Your task to perform on an android device: View the shopping cart on newegg.com. Image 0: 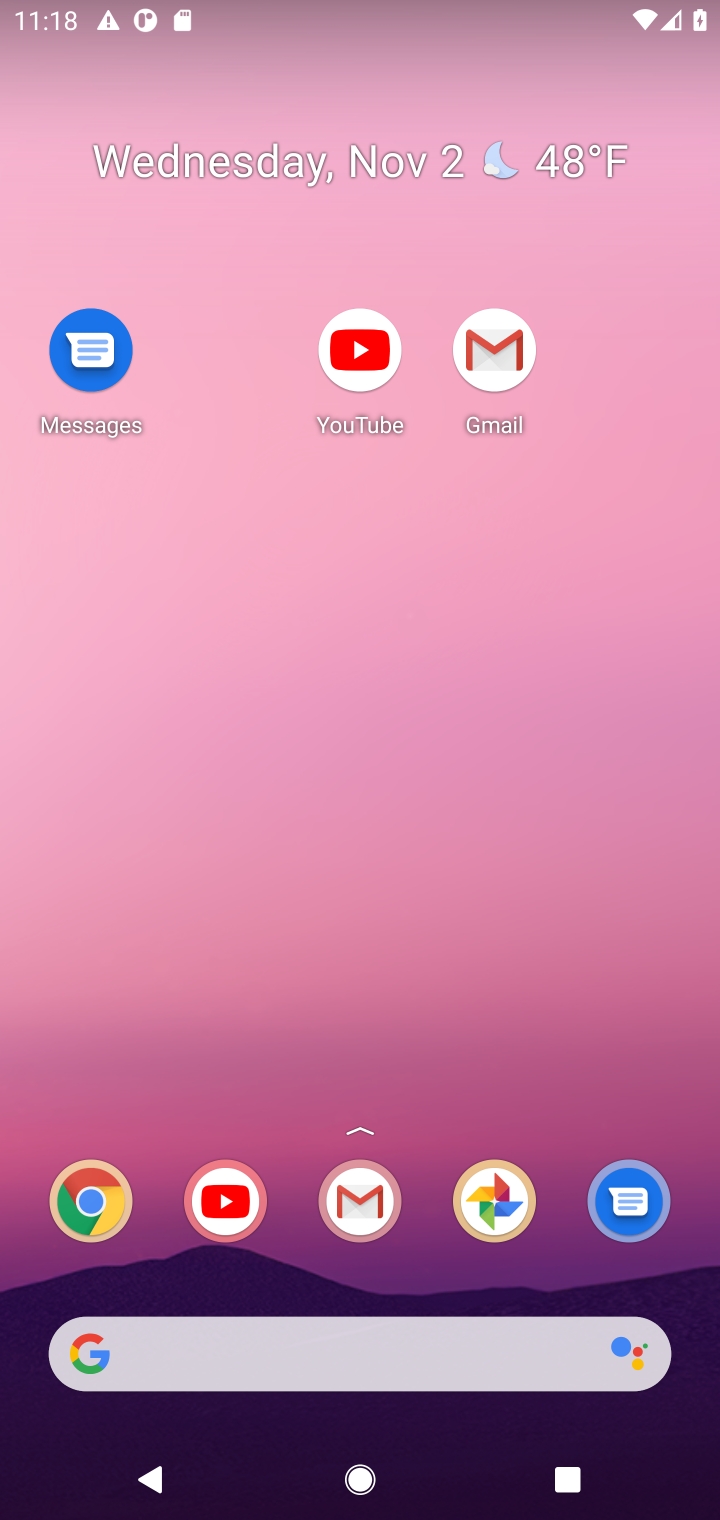
Step 0: drag from (452, 1305) to (474, 193)
Your task to perform on an android device: View the shopping cart on newegg.com. Image 1: 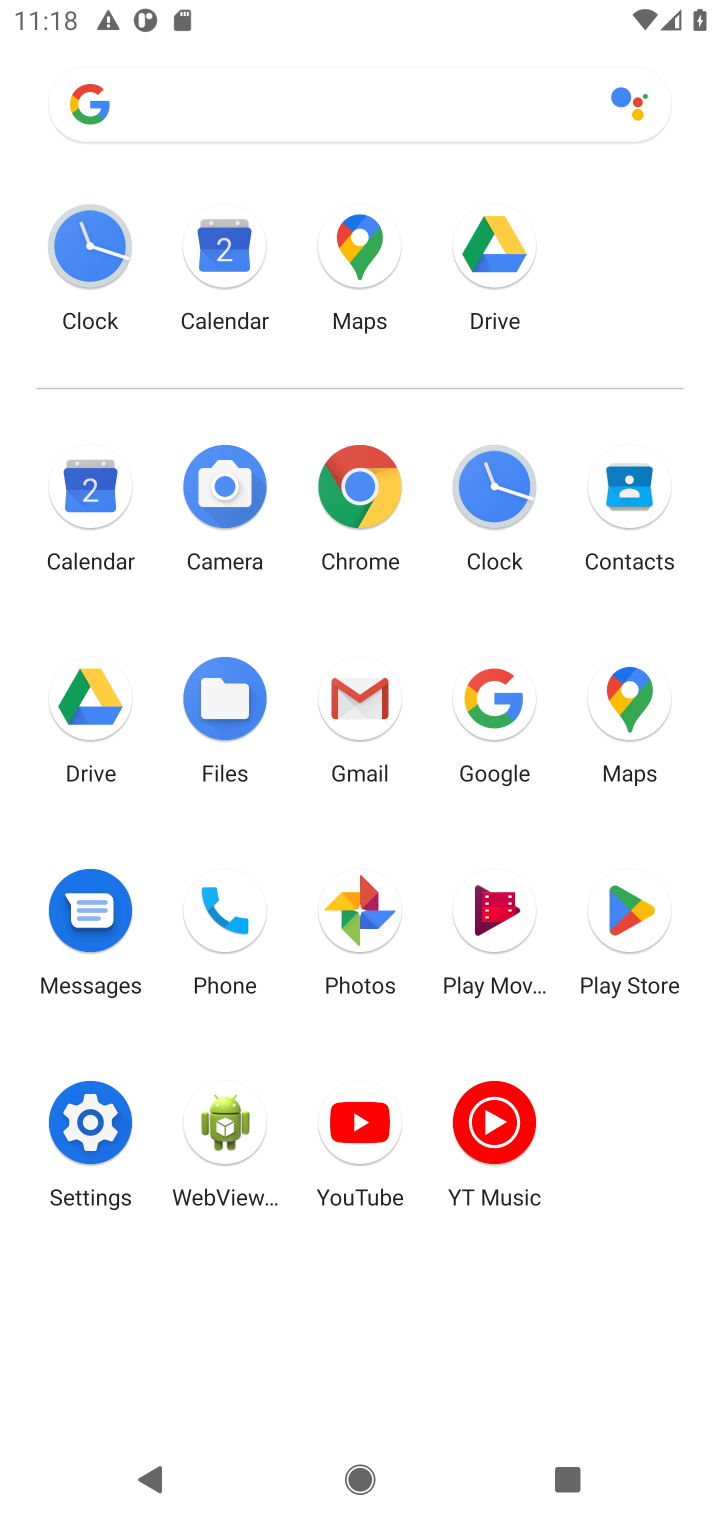
Step 1: click (365, 482)
Your task to perform on an android device: View the shopping cart on newegg.com. Image 2: 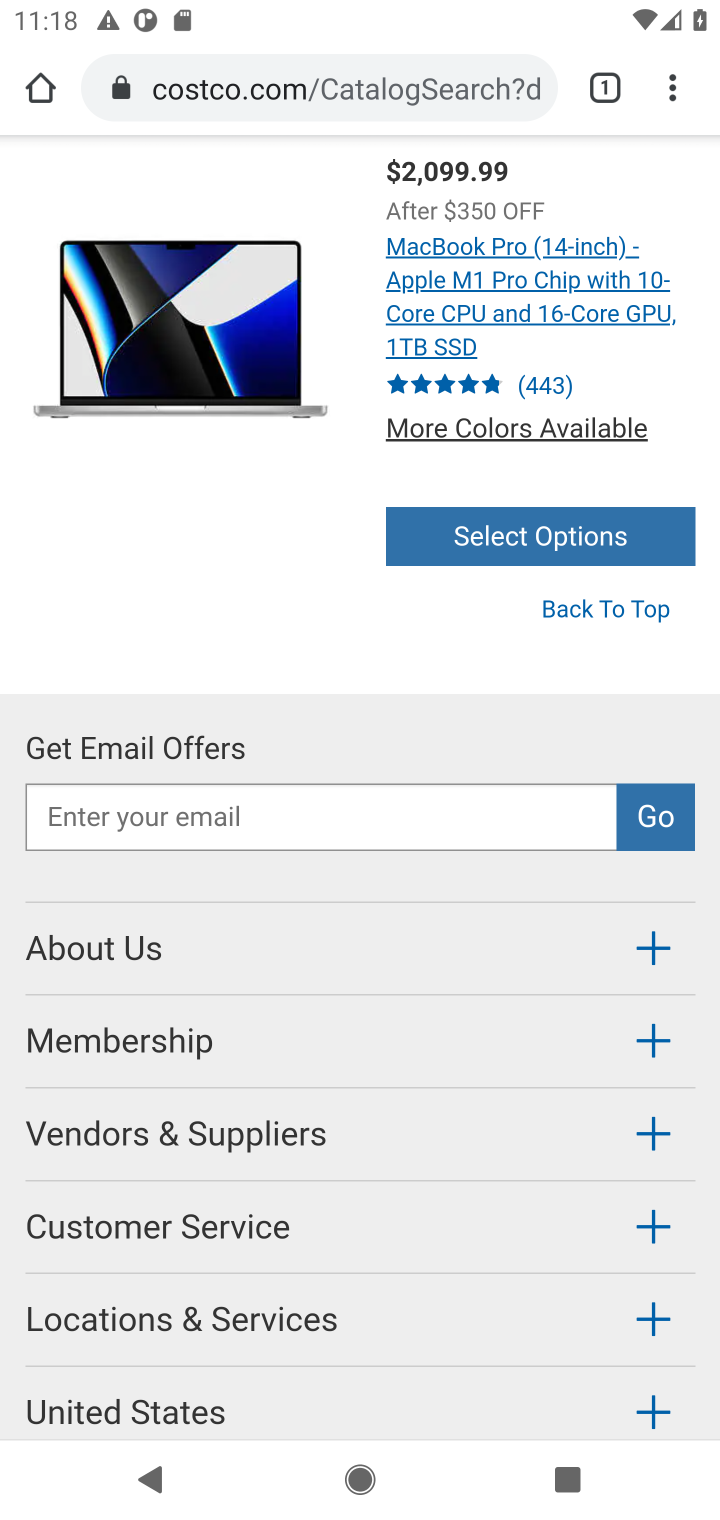
Step 2: click (358, 79)
Your task to perform on an android device: View the shopping cart on newegg.com. Image 3: 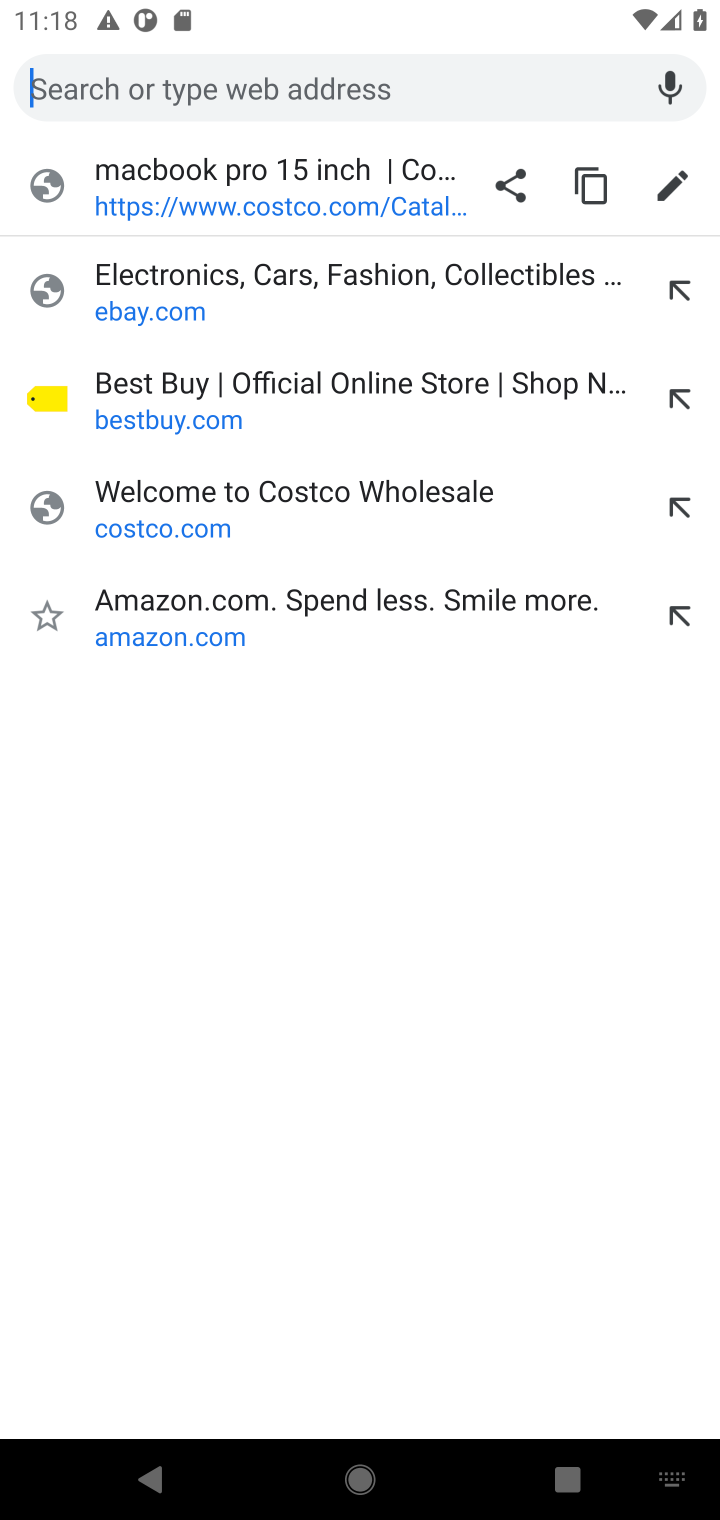
Step 3: type "newegg.com"
Your task to perform on an android device: View the shopping cart on newegg.com. Image 4: 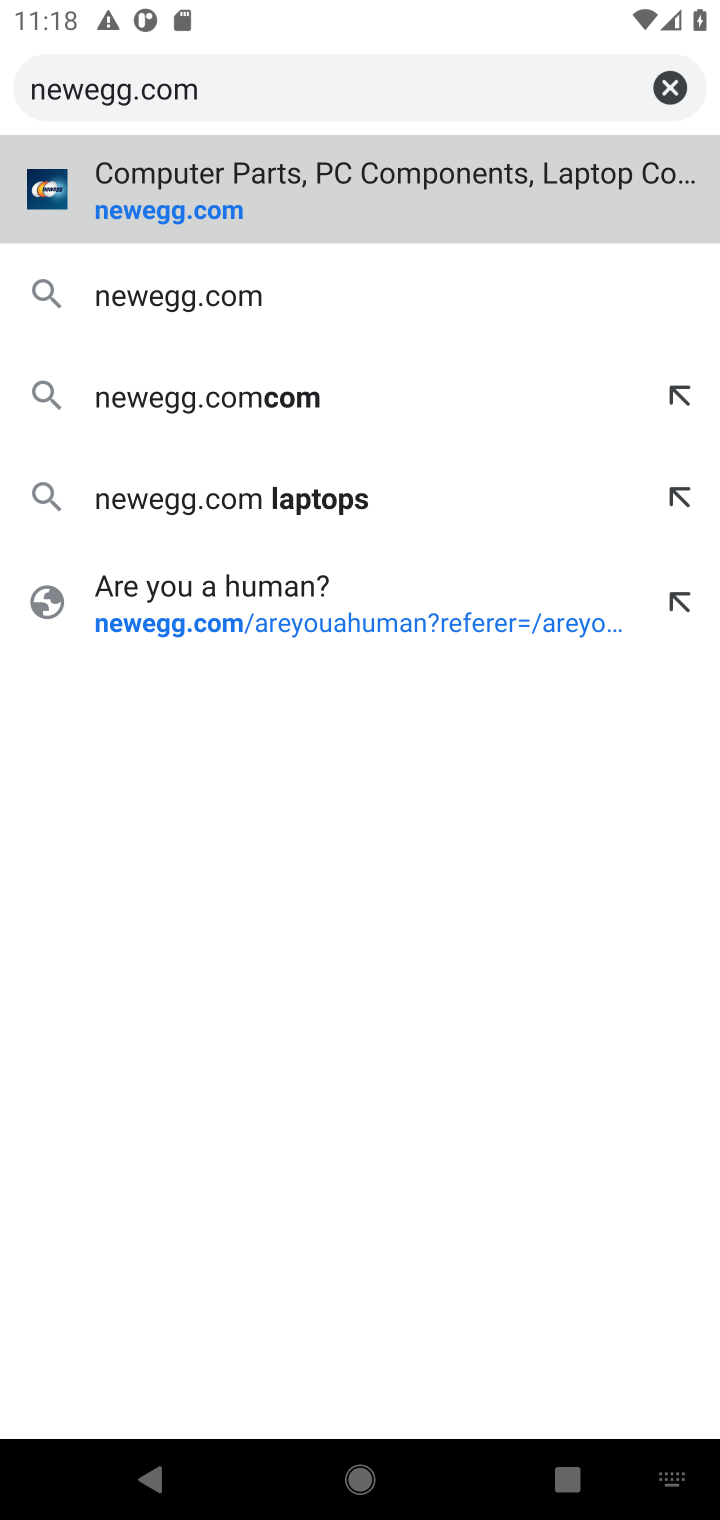
Step 4: press enter
Your task to perform on an android device: View the shopping cart on newegg.com. Image 5: 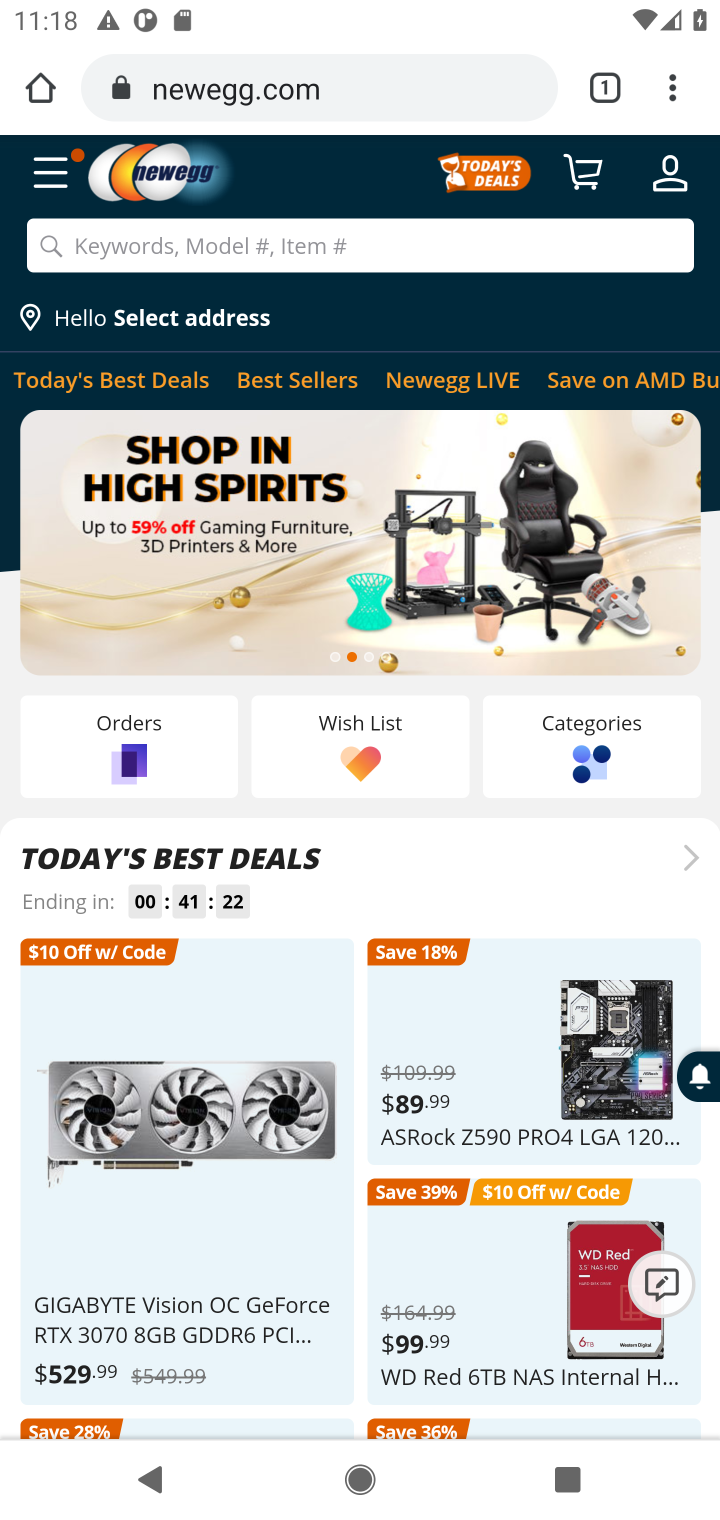
Step 5: click (590, 160)
Your task to perform on an android device: View the shopping cart on newegg.com. Image 6: 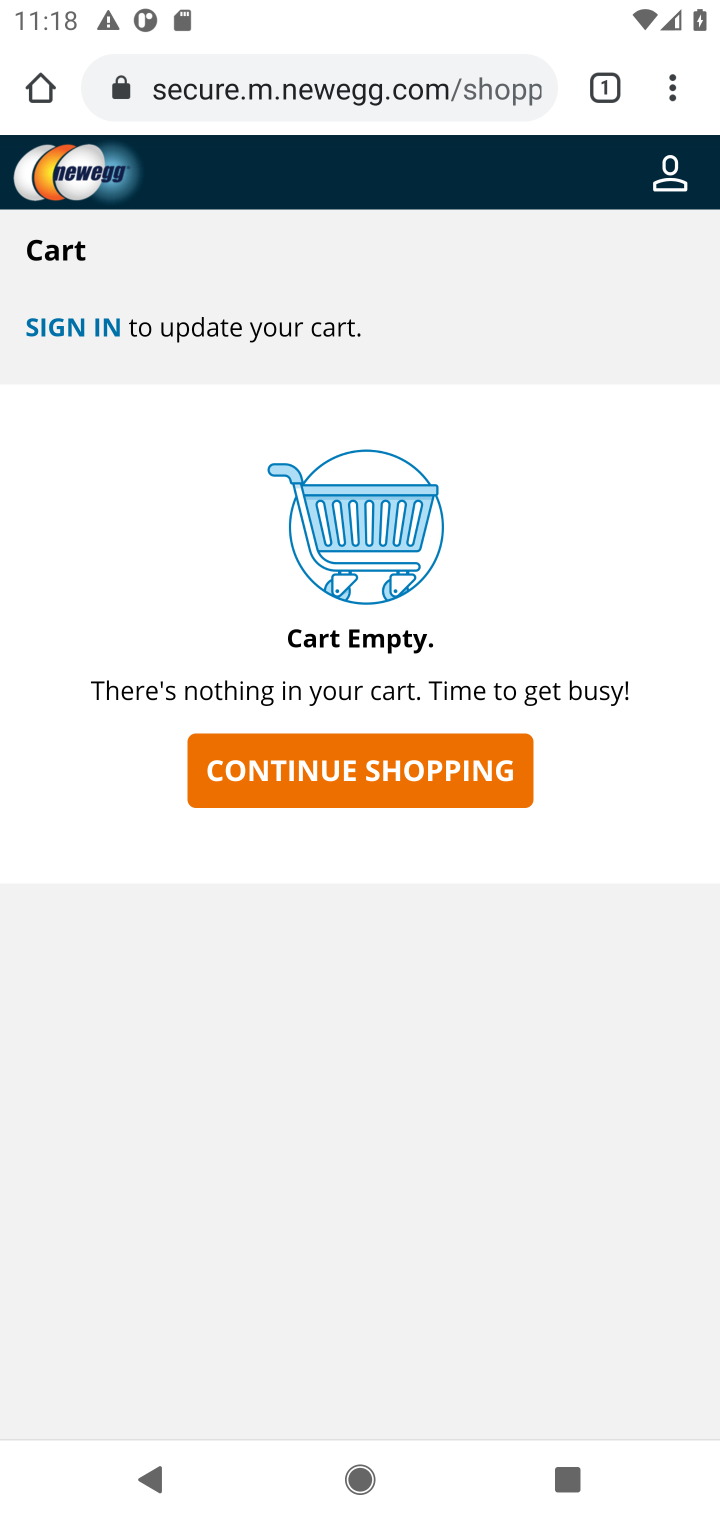
Step 6: task complete